Your task to perform on an android device: Add "razer blade" to the cart on bestbuy, then select checkout. Image 0: 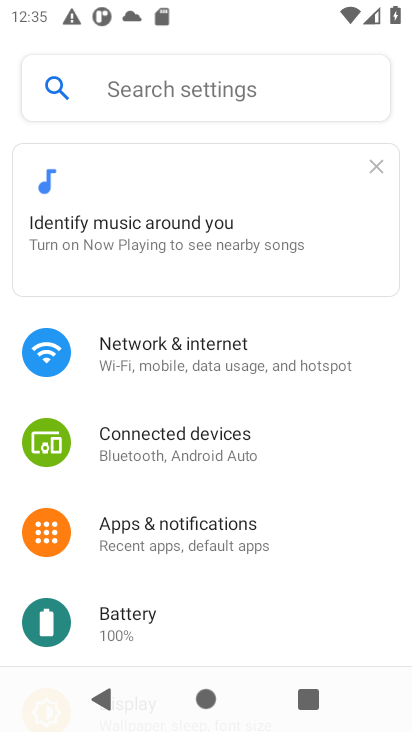
Step 0: press home button
Your task to perform on an android device: Add "razer blade" to the cart on bestbuy, then select checkout. Image 1: 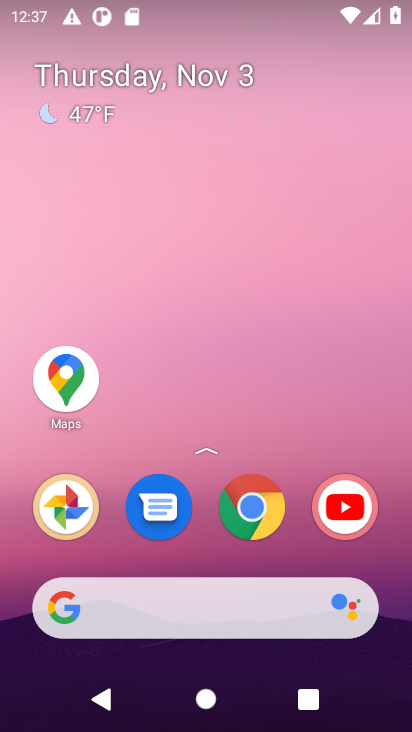
Step 1: click (178, 588)
Your task to perform on an android device: Add "razer blade" to the cart on bestbuy, then select checkout. Image 2: 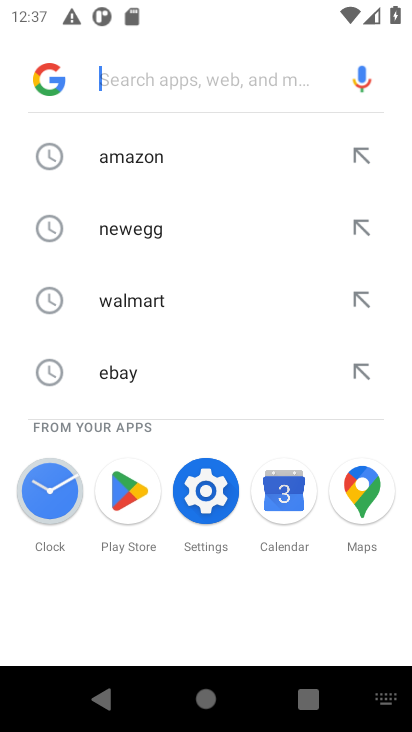
Step 2: type "bestbuy"
Your task to perform on an android device: Add "razer blade" to the cart on bestbuy, then select checkout. Image 3: 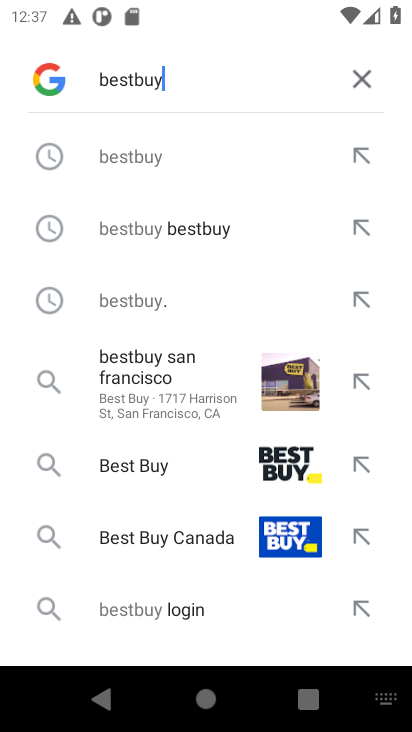
Step 3: click (194, 160)
Your task to perform on an android device: Add "razer blade" to the cart on bestbuy, then select checkout. Image 4: 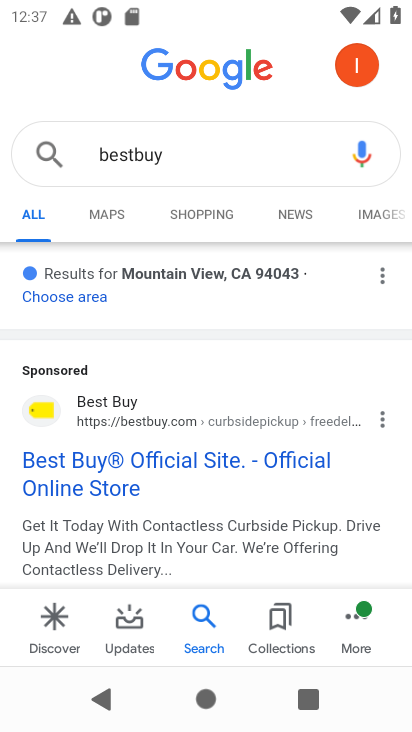
Step 4: click (228, 456)
Your task to perform on an android device: Add "razer blade" to the cart on bestbuy, then select checkout. Image 5: 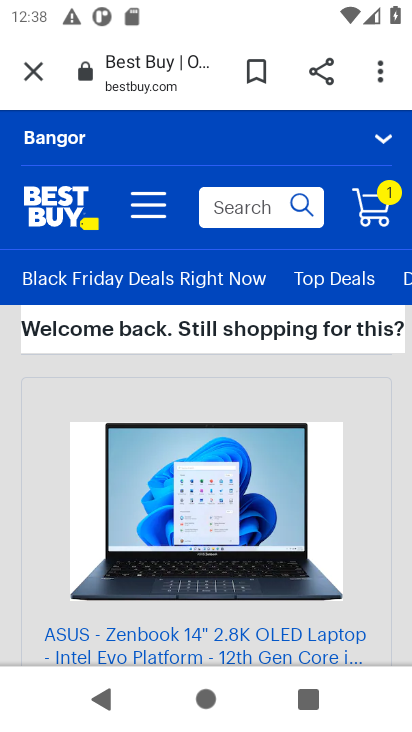
Step 5: click (247, 205)
Your task to perform on an android device: Add "razer blade" to the cart on bestbuy, then select checkout. Image 6: 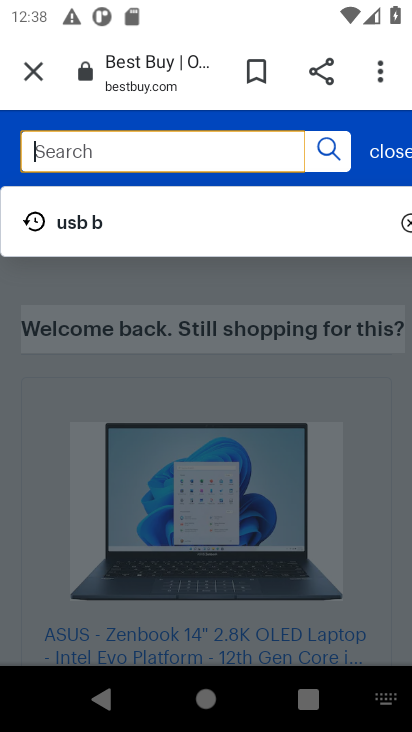
Step 6: type "razer blade"
Your task to perform on an android device: Add "razer blade" to the cart on bestbuy, then select checkout. Image 7: 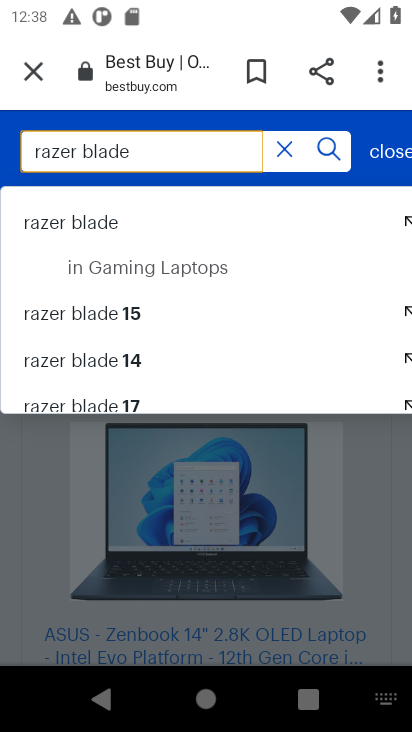
Step 7: click (92, 219)
Your task to perform on an android device: Add "razer blade" to the cart on bestbuy, then select checkout. Image 8: 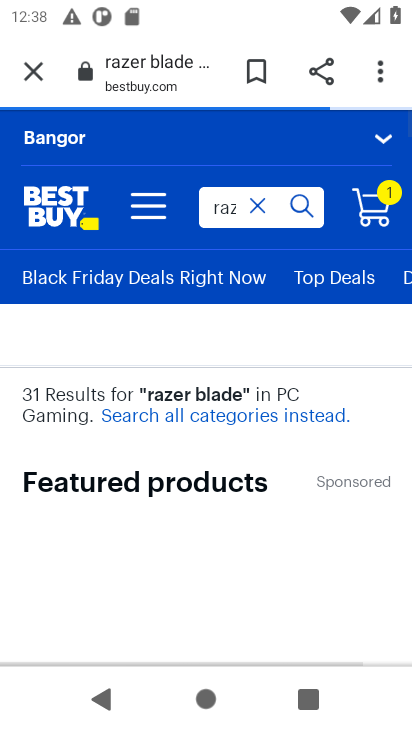
Step 8: task complete